Your task to perform on an android device: Open Chrome and go to settings Image 0: 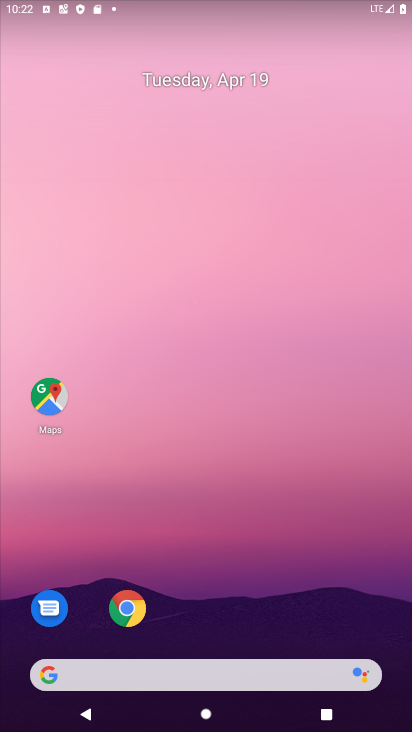
Step 0: click (127, 610)
Your task to perform on an android device: Open Chrome and go to settings Image 1: 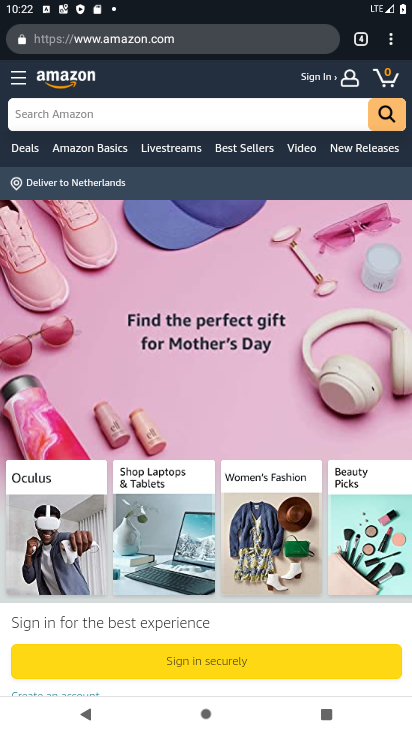
Step 1: click (389, 45)
Your task to perform on an android device: Open Chrome and go to settings Image 2: 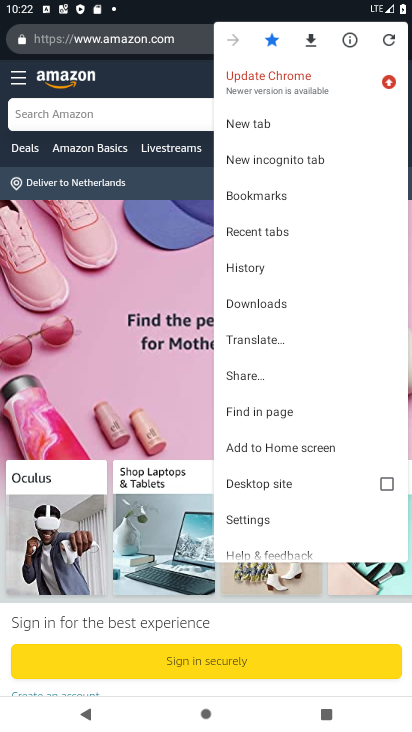
Step 2: drag from (311, 495) to (363, 218)
Your task to perform on an android device: Open Chrome and go to settings Image 3: 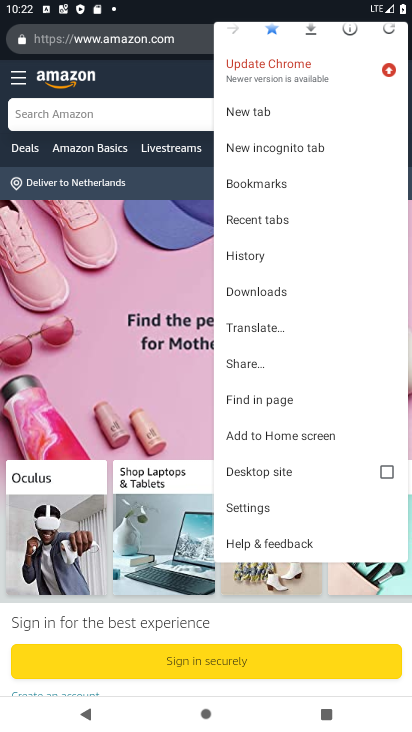
Step 3: click (236, 506)
Your task to perform on an android device: Open Chrome and go to settings Image 4: 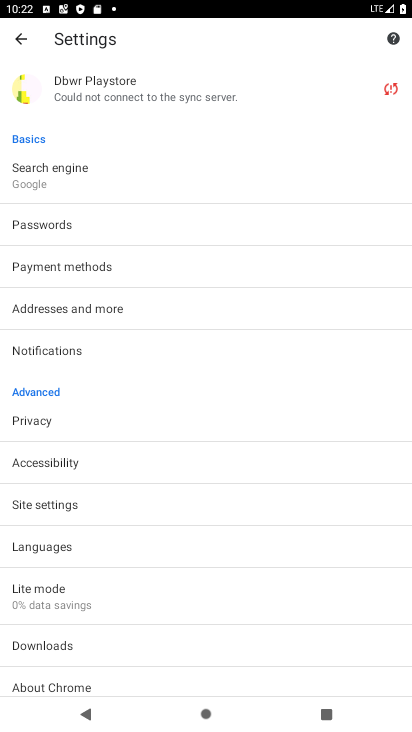
Step 4: task complete